Your task to perform on an android device: toggle pop-ups in chrome Image 0: 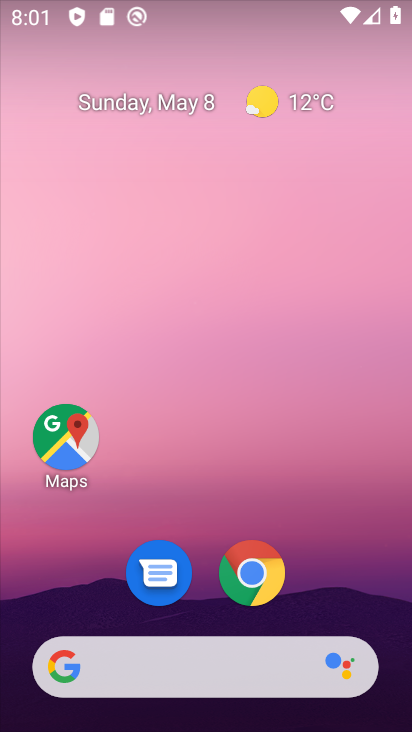
Step 0: click (253, 571)
Your task to perform on an android device: toggle pop-ups in chrome Image 1: 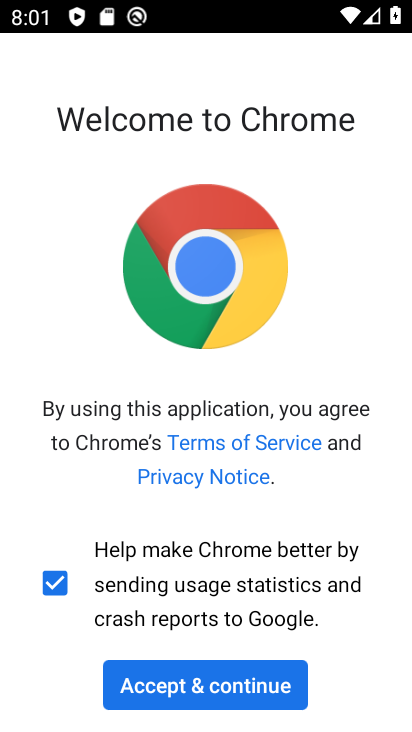
Step 1: click (242, 686)
Your task to perform on an android device: toggle pop-ups in chrome Image 2: 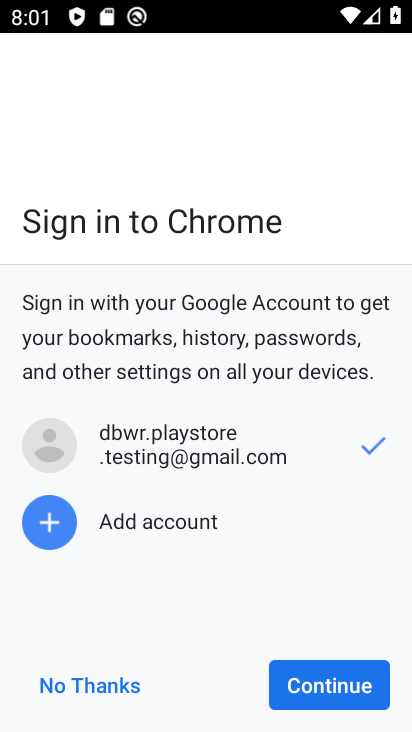
Step 2: click (341, 685)
Your task to perform on an android device: toggle pop-ups in chrome Image 3: 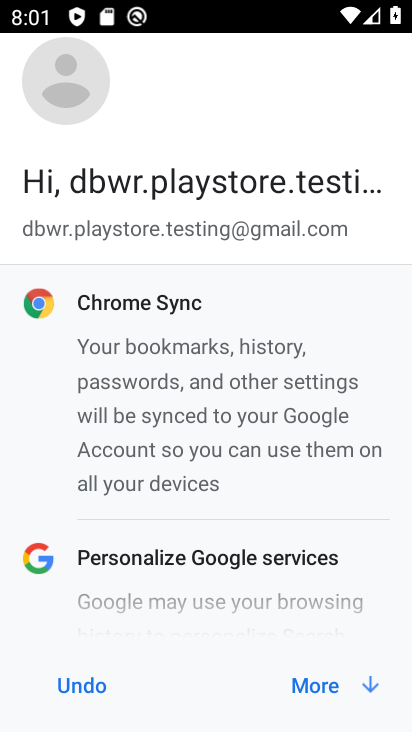
Step 3: click (319, 682)
Your task to perform on an android device: toggle pop-ups in chrome Image 4: 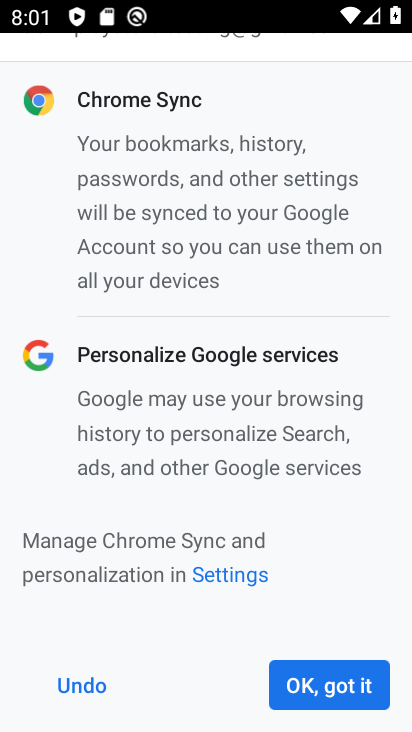
Step 4: click (319, 682)
Your task to perform on an android device: toggle pop-ups in chrome Image 5: 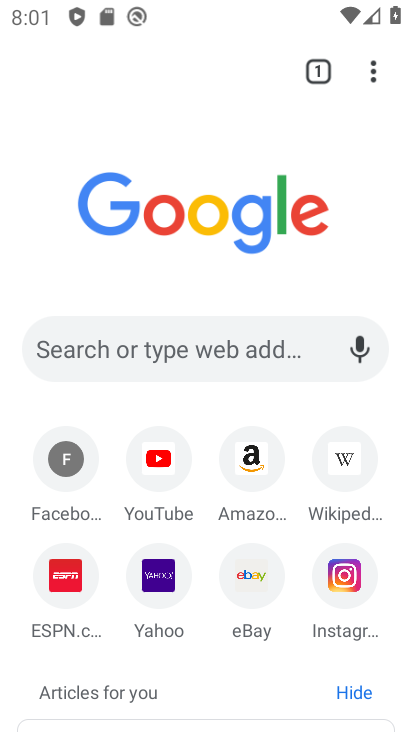
Step 5: click (374, 77)
Your task to perform on an android device: toggle pop-ups in chrome Image 6: 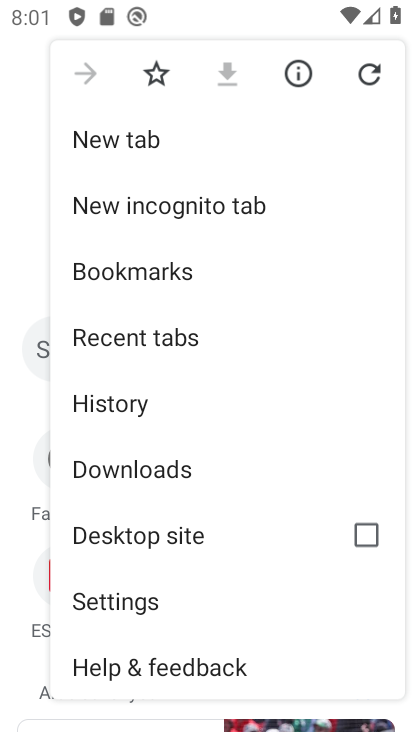
Step 6: click (145, 600)
Your task to perform on an android device: toggle pop-ups in chrome Image 7: 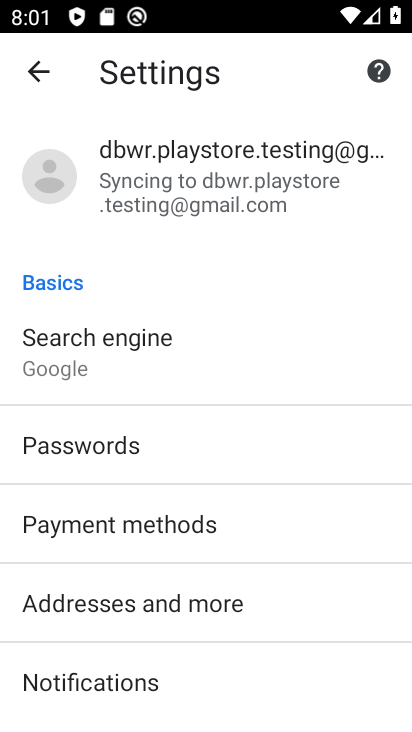
Step 7: drag from (196, 669) to (201, 265)
Your task to perform on an android device: toggle pop-ups in chrome Image 8: 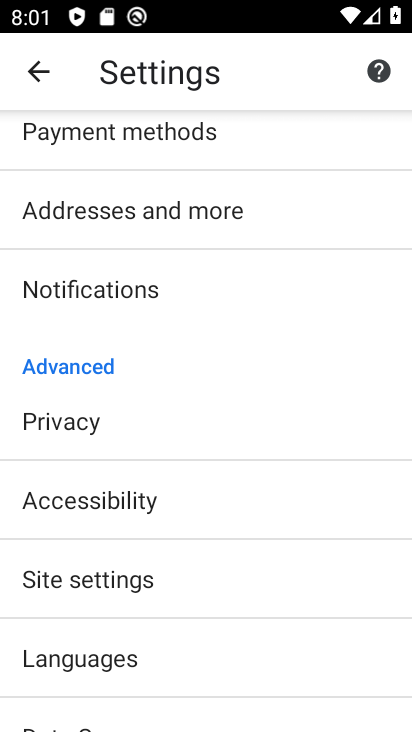
Step 8: drag from (229, 672) to (238, 431)
Your task to perform on an android device: toggle pop-ups in chrome Image 9: 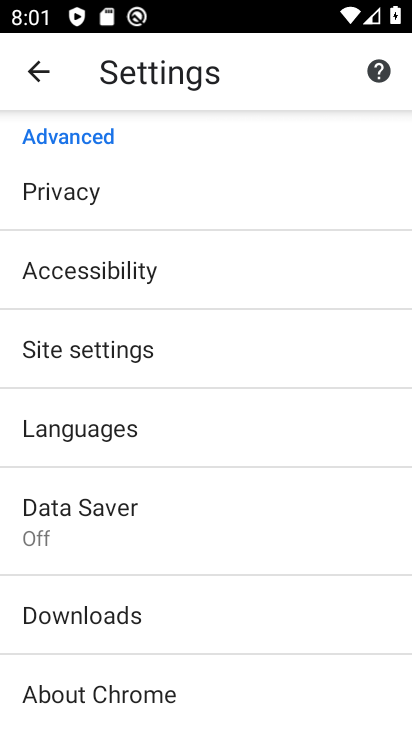
Step 9: click (103, 348)
Your task to perform on an android device: toggle pop-ups in chrome Image 10: 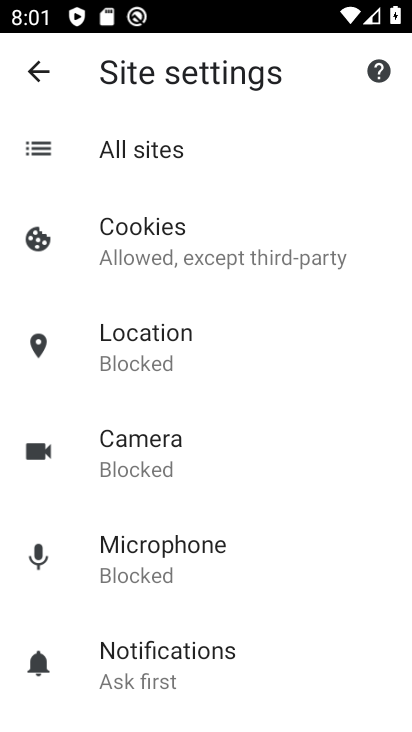
Step 10: drag from (247, 673) to (239, 296)
Your task to perform on an android device: toggle pop-ups in chrome Image 11: 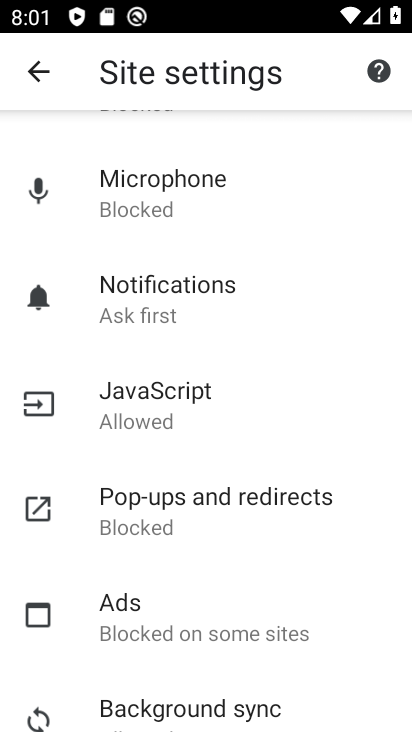
Step 11: click (182, 494)
Your task to perform on an android device: toggle pop-ups in chrome Image 12: 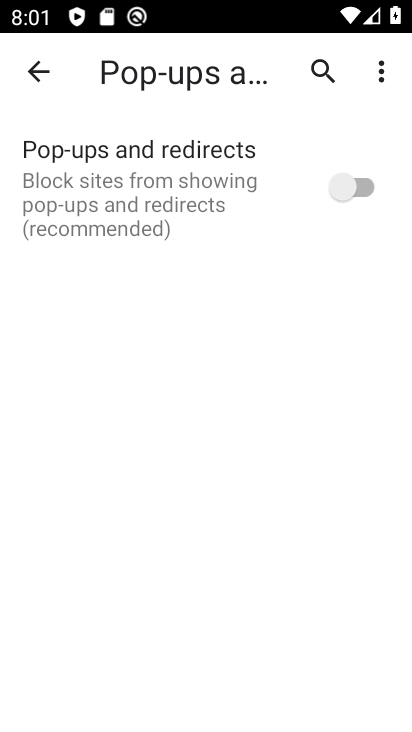
Step 12: click (365, 182)
Your task to perform on an android device: toggle pop-ups in chrome Image 13: 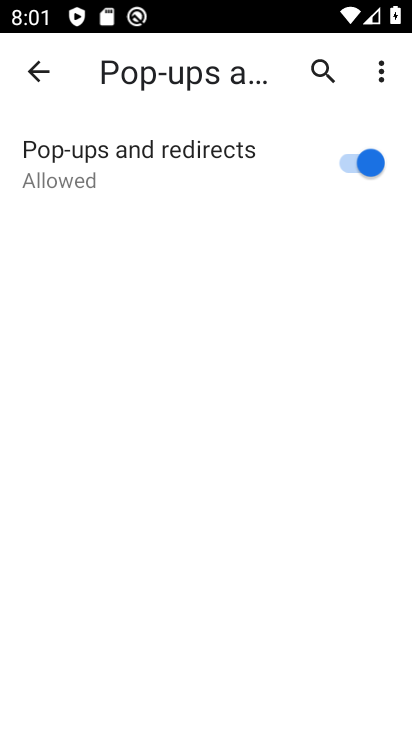
Step 13: task complete